Your task to perform on an android device: Open network settings Image 0: 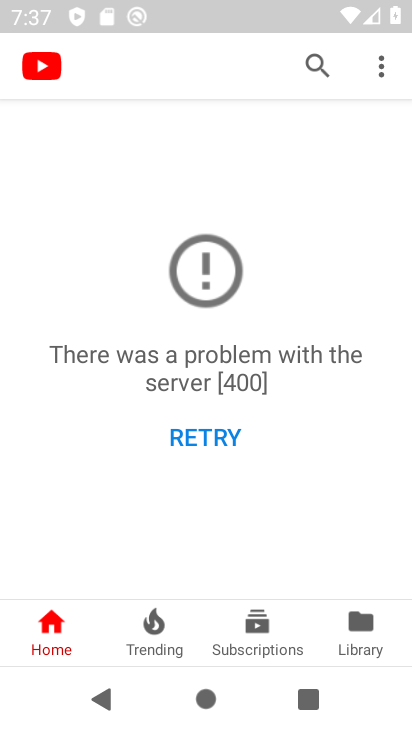
Step 0: press home button
Your task to perform on an android device: Open network settings Image 1: 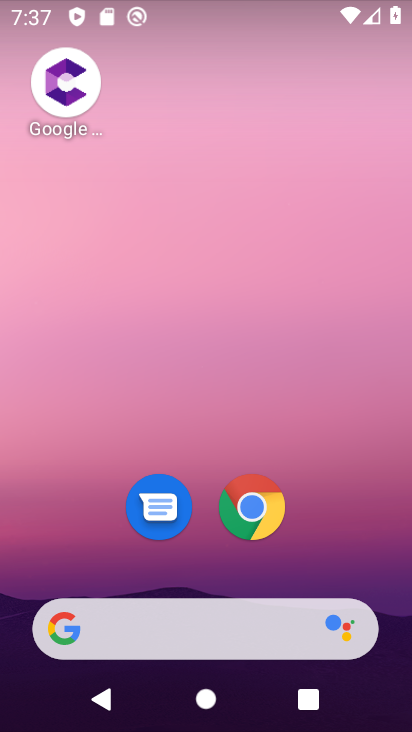
Step 1: drag from (226, 651) to (172, 104)
Your task to perform on an android device: Open network settings Image 2: 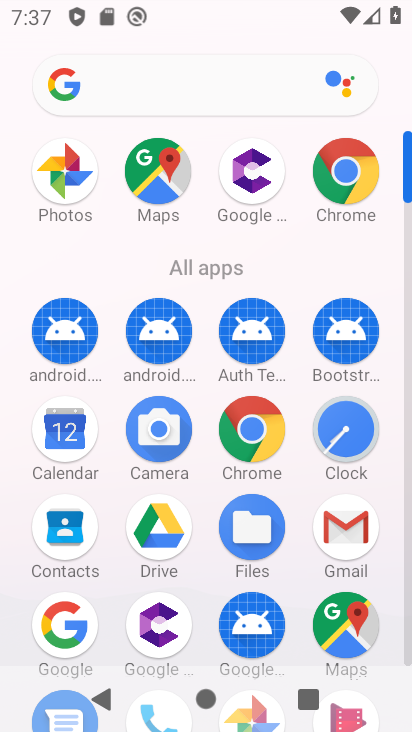
Step 2: drag from (214, 479) to (240, 240)
Your task to perform on an android device: Open network settings Image 3: 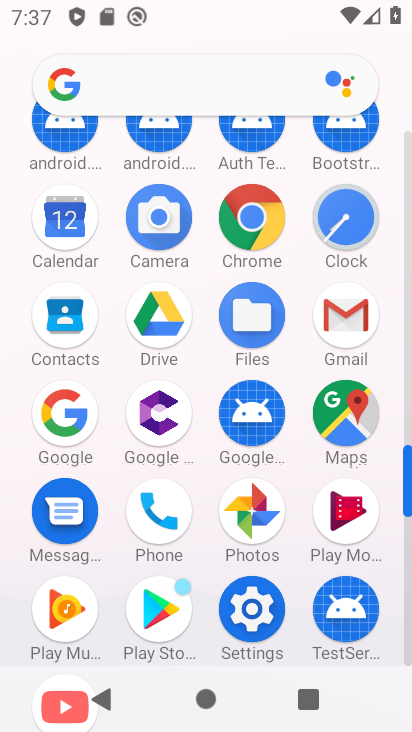
Step 3: click (240, 604)
Your task to perform on an android device: Open network settings Image 4: 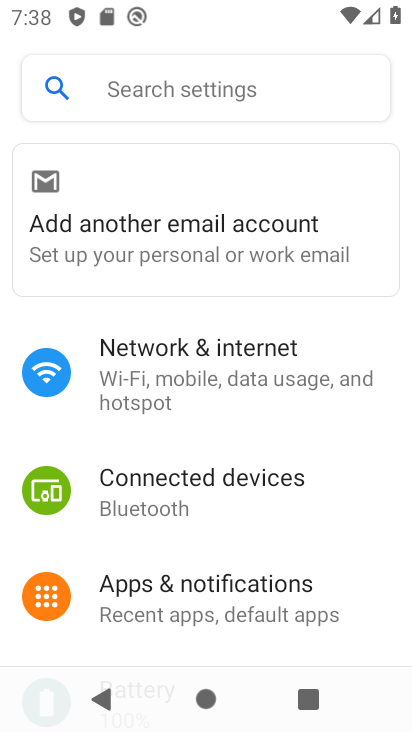
Step 4: click (182, 349)
Your task to perform on an android device: Open network settings Image 5: 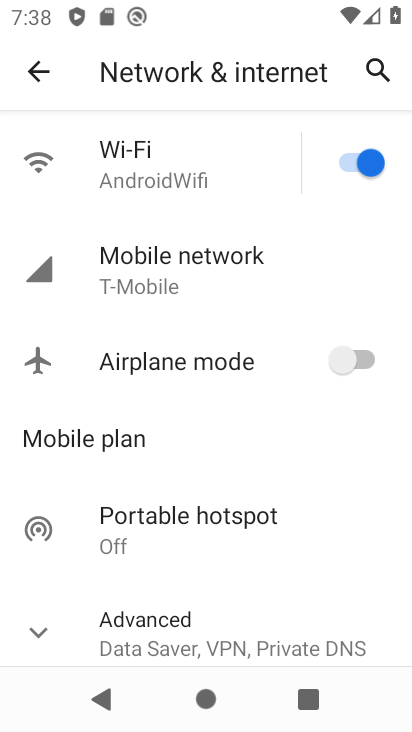
Step 5: task complete